Your task to perform on an android device: toggle improve location accuracy Image 0: 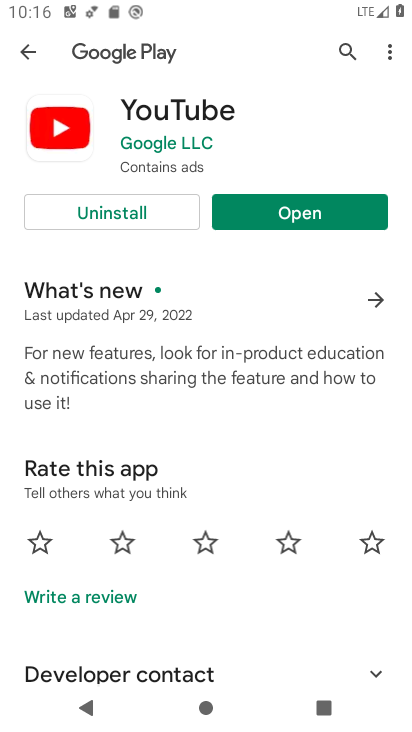
Step 0: press home button
Your task to perform on an android device: toggle improve location accuracy Image 1: 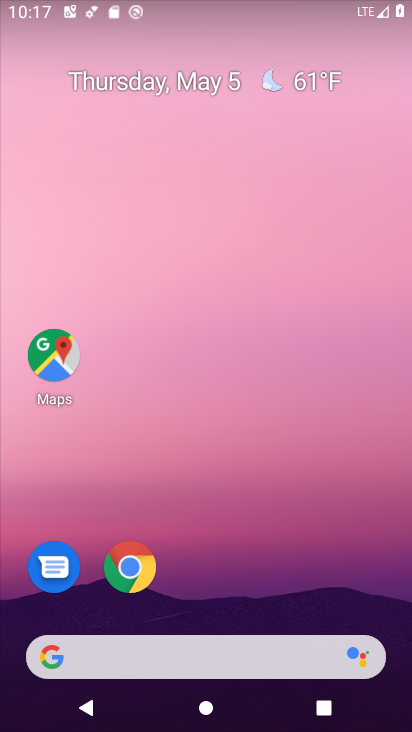
Step 1: drag from (290, 591) to (286, 208)
Your task to perform on an android device: toggle improve location accuracy Image 2: 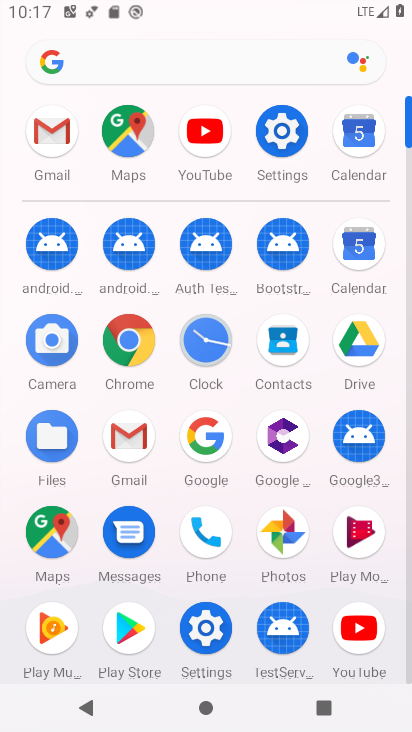
Step 2: click (285, 131)
Your task to perform on an android device: toggle improve location accuracy Image 3: 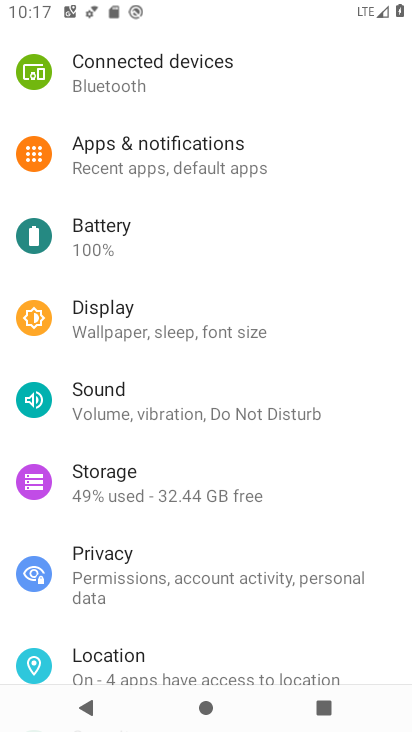
Step 3: click (205, 673)
Your task to perform on an android device: toggle improve location accuracy Image 4: 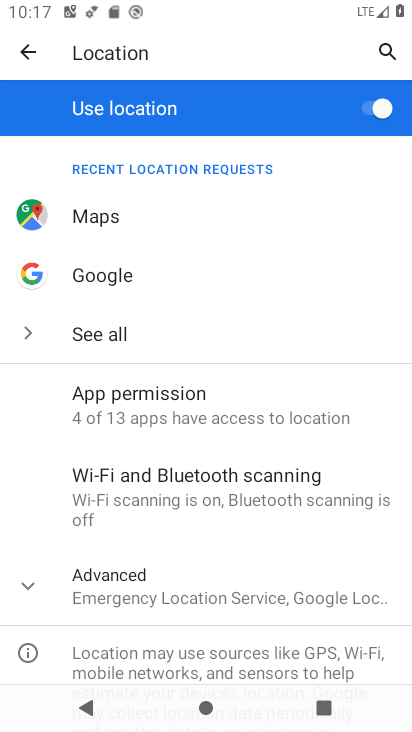
Step 4: click (294, 592)
Your task to perform on an android device: toggle improve location accuracy Image 5: 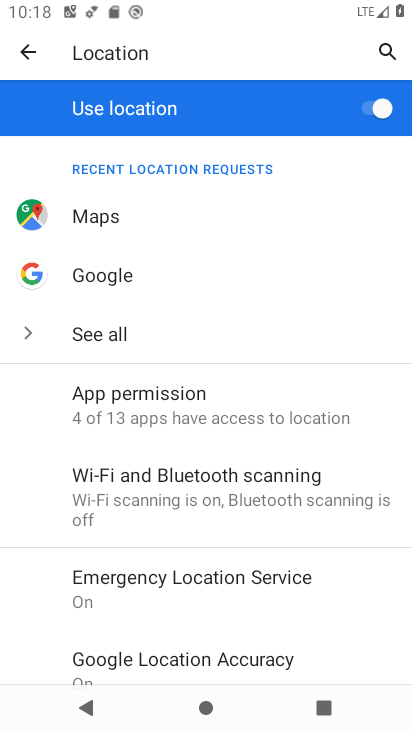
Step 5: drag from (265, 625) to (297, 370)
Your task to perform on an android device: toggle improve location accuracy Image 6: 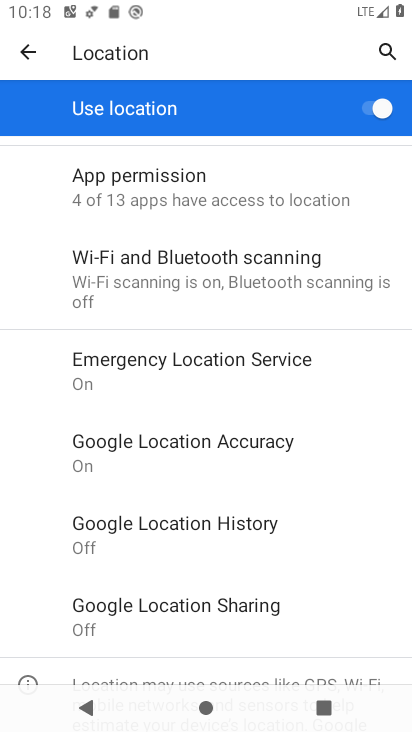
Step 6: click (279, 439)
Your task to perform on an android device: toggle improve location accuracy Image 7: 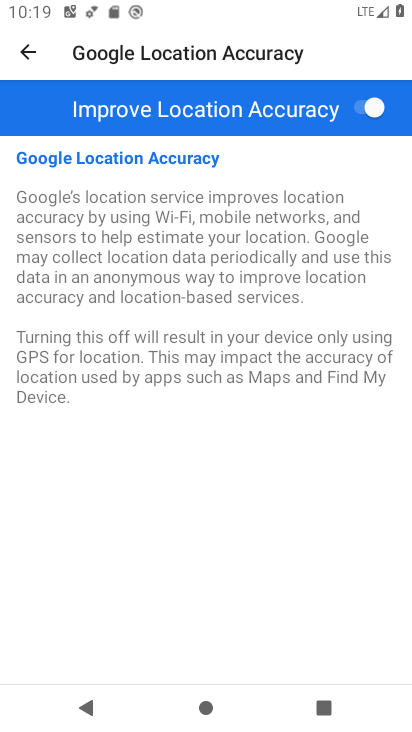
Step 7: click (360, 106)
Your task to perform on an android device: toggle improve location accuracy Image 8: 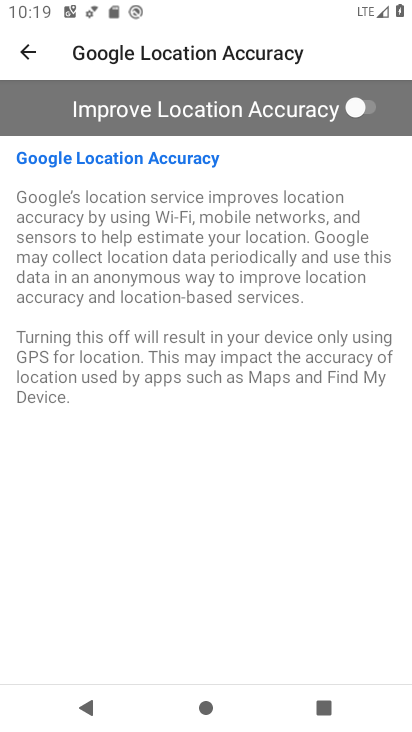
Step 8: task complete